Your task to perform on an android device: delete location history Image 0: 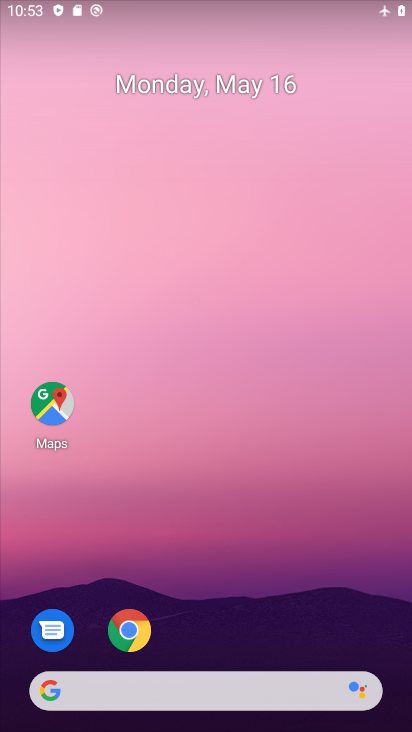
Step 0: drag from (226, 650) to (224, 133)
Your task to perform on an android device: delete location history Image 1: 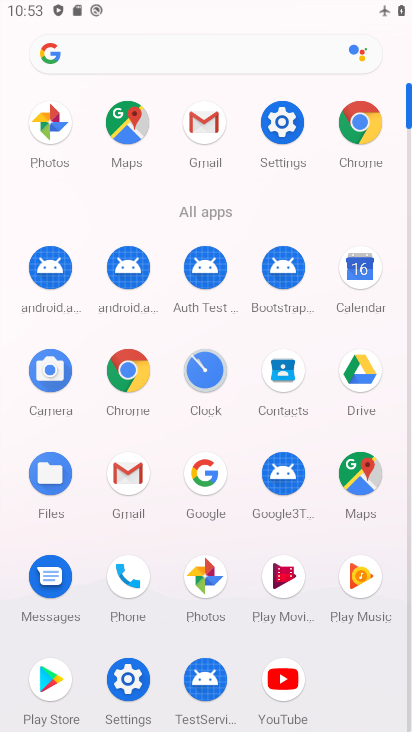
Step 1: click (282, 125)
Your task to perform on an android device: delete location history Image 2: 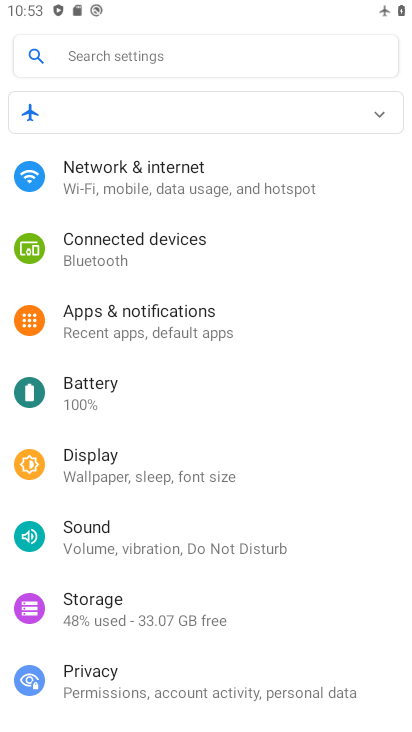
Step 2: press back button
Your task to perform on an android device: delete location history Image 3: 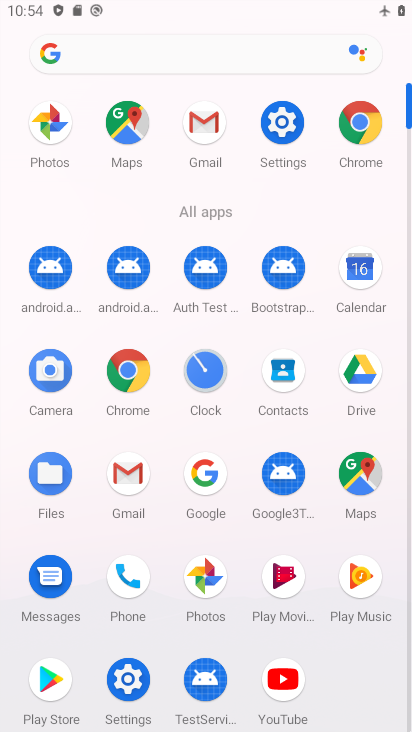
Step 3: click (125, 124)
Your task to perform on an android device: delete location history Image 4: 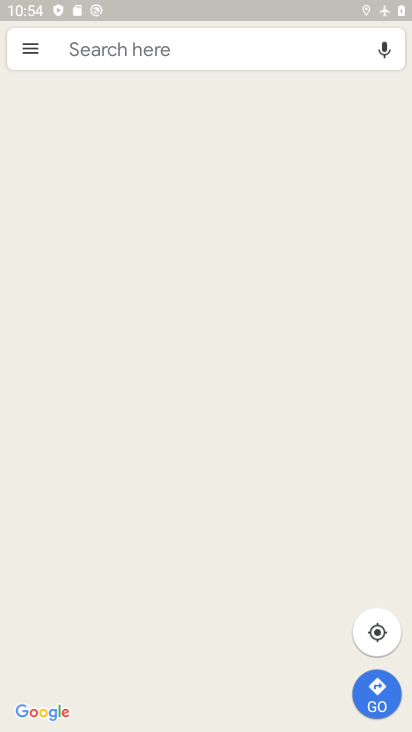
Step 4: click (30, 52)
Your task to perform on an android device: delete location history Image 5: 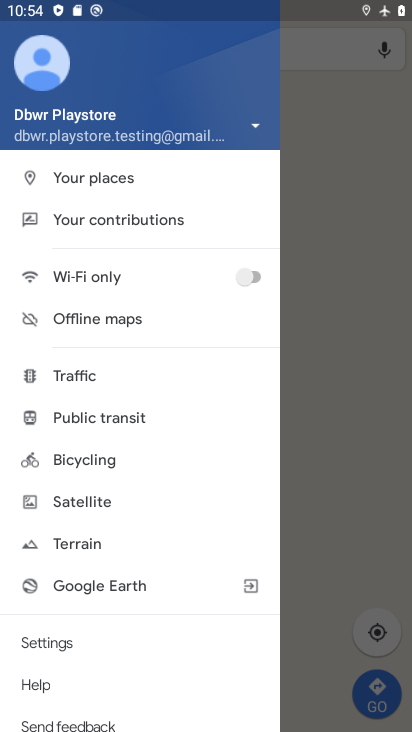
Step 5: task complete